Your task to perform on an android device: See recent photos Image 0: 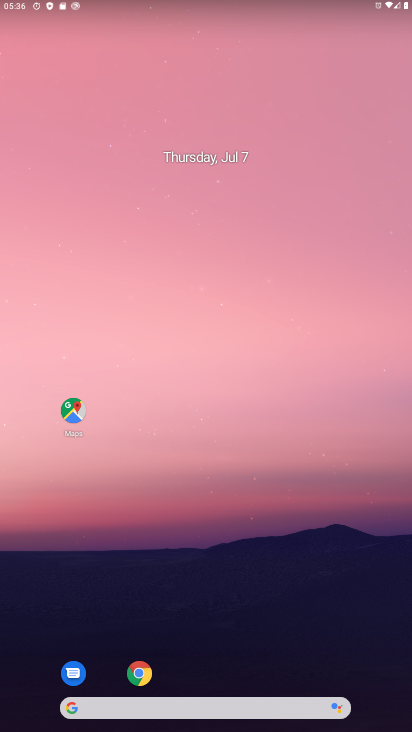
Step 0: drag from (213, 651) to (263, 113)
Your task to perform on an android device: See recent photos Image 1: 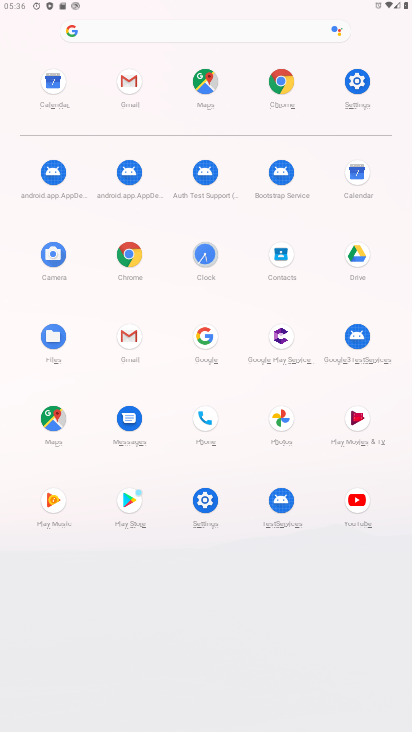
Step 1: click (290, 416)
Your task to perform on an android device: See recent photos Image 2: 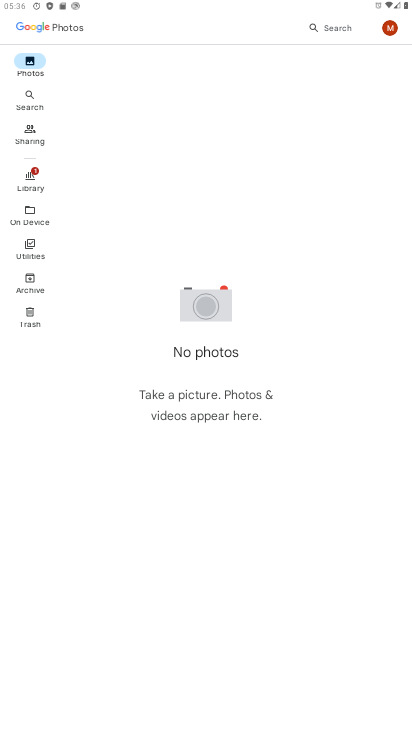
Step 2: task complete